Your task to perform on an android device: all mails in gmail Image 0: 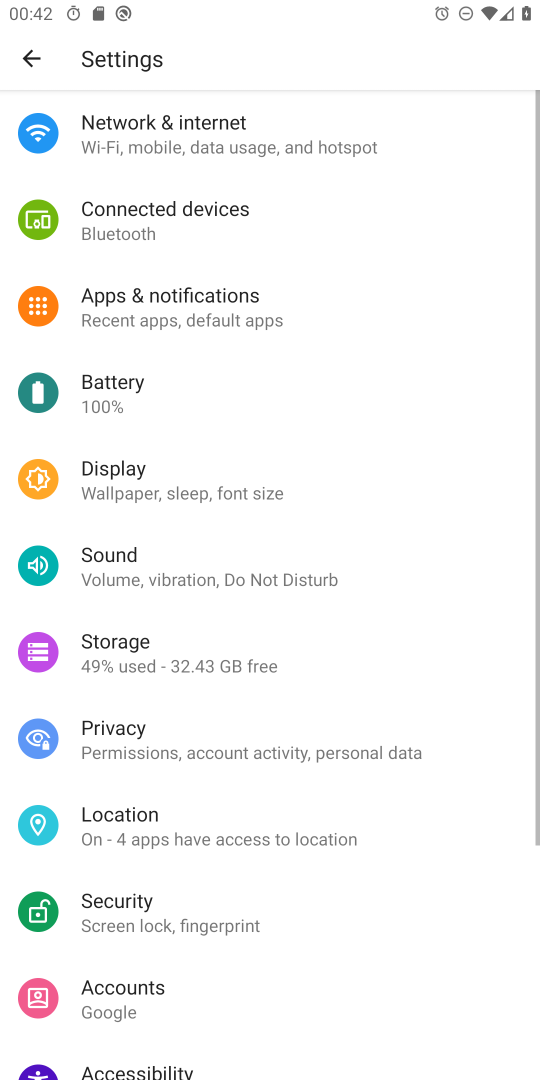
Step 0: press home button
Your task to perform on an android device: all mails in gmail Image 1: 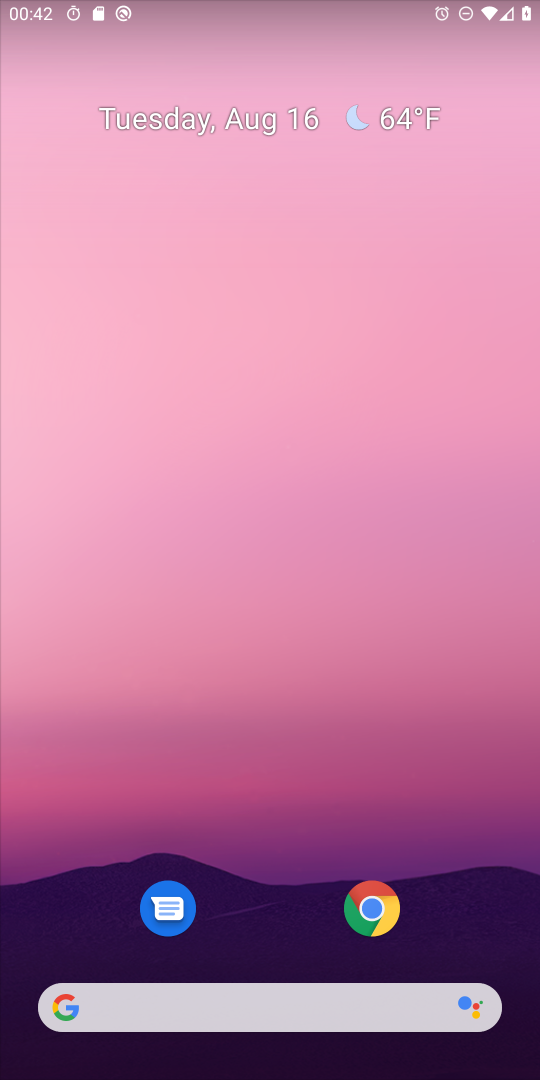
Step 1: drag from (266, 957) to (157, 108)
Your task to perform on an android device: all mails in gmail Image 2: 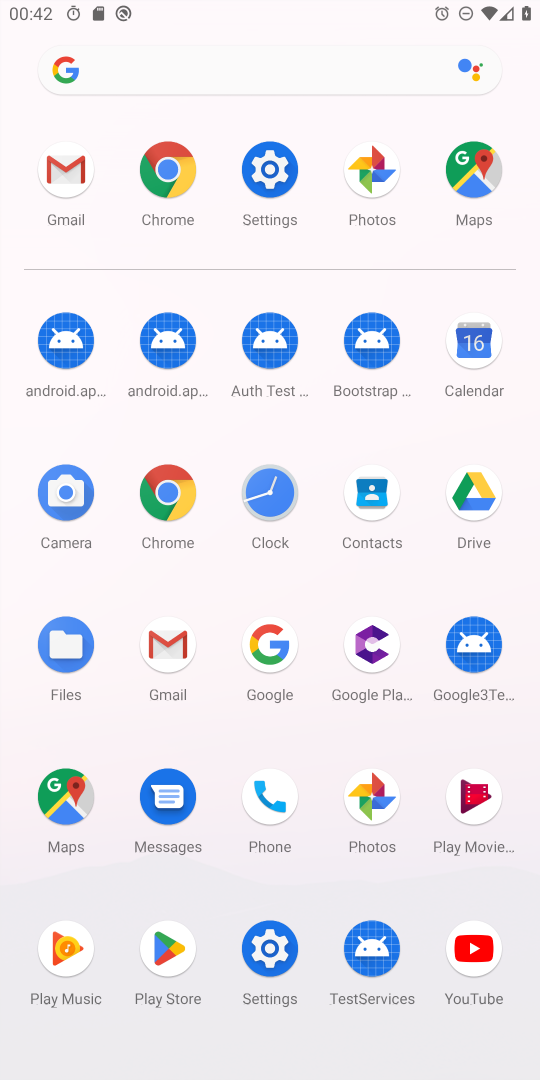
Step 2: click (79, 175)
Your task to perform on an android device: all mails in gmail Image 3: 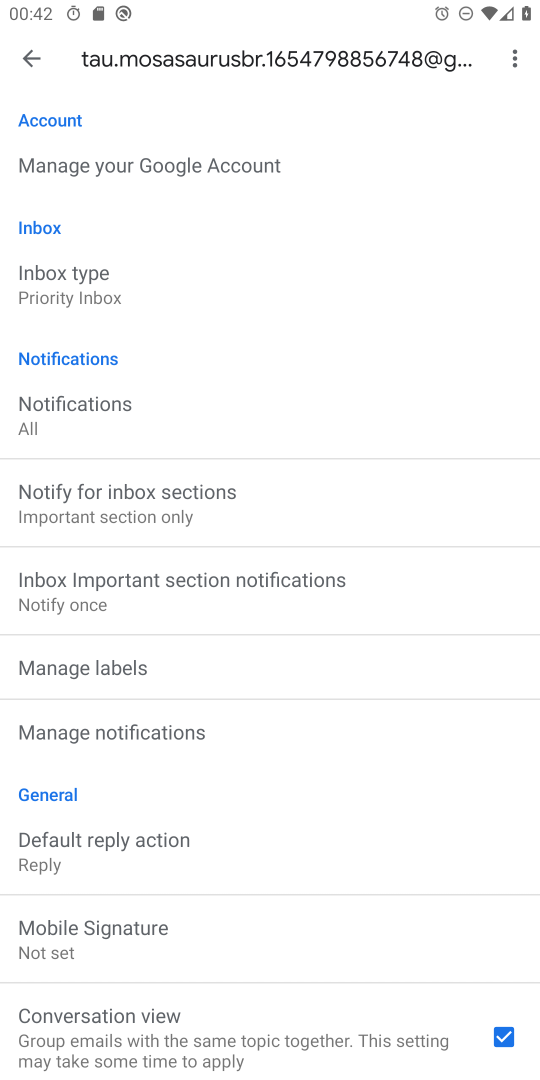
Step 3: click (38, 45)
Your task to perform on an android device: all mails in gmail Image 4: 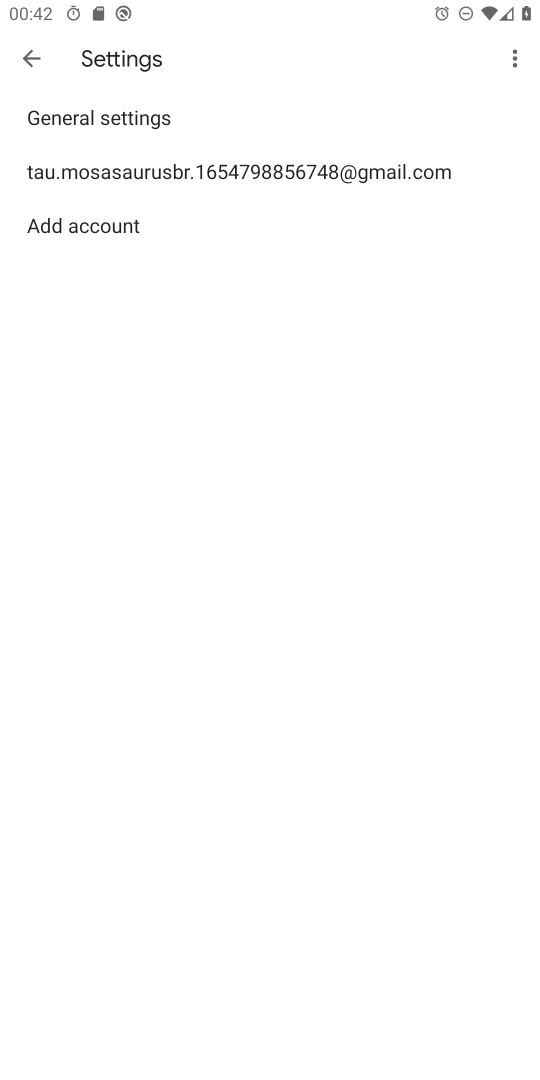
Step 4: click (35, 52)
Your task to perform on an android device: all mails in gmail Image 5: 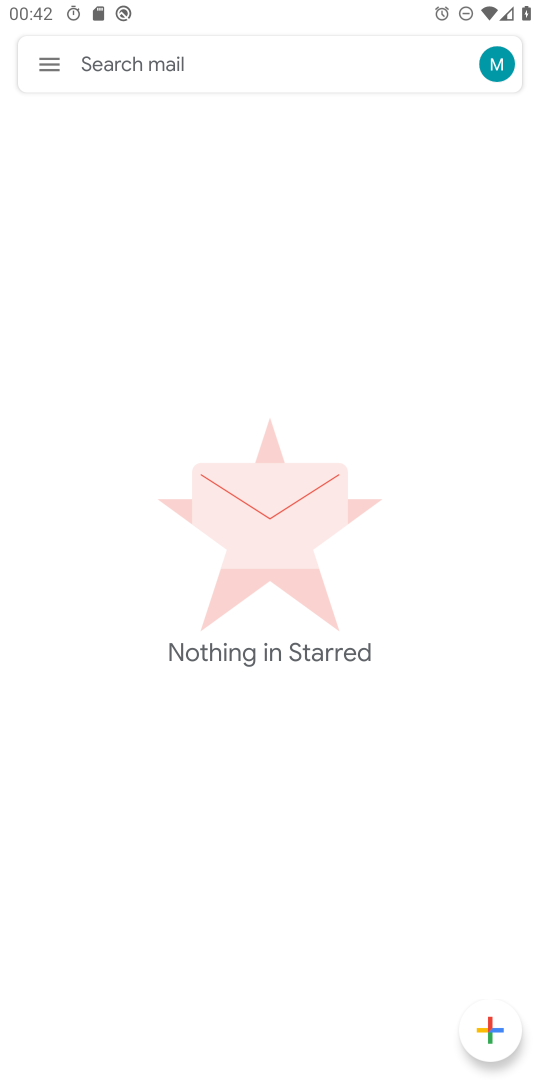
Step 5: click (35, 52)
Your task to perform on an android device: all mails in gmail Image 6: 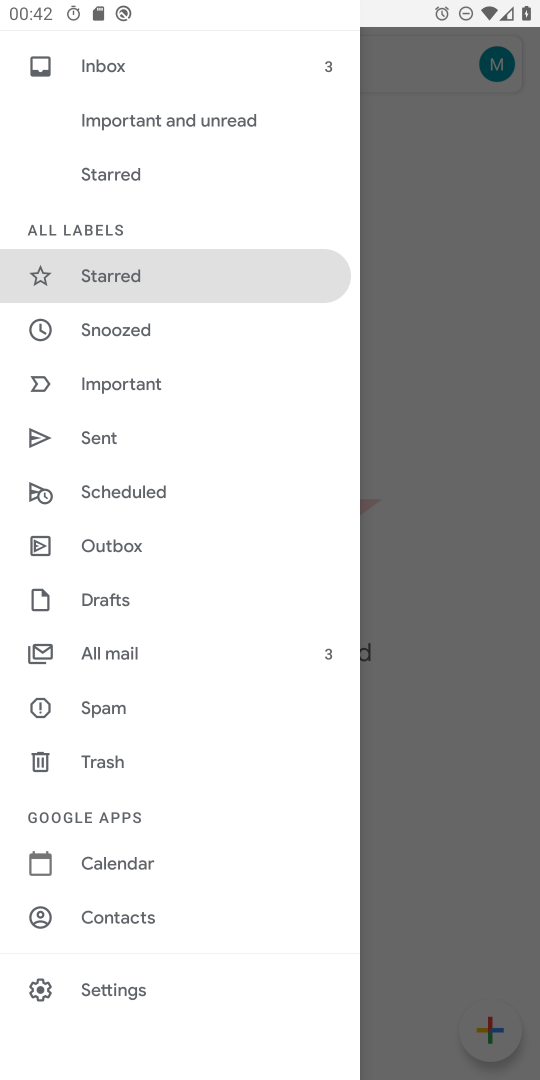
Step 6: click (158, 652)
Your task to perform on an android device: all mails in gmail Image 7: 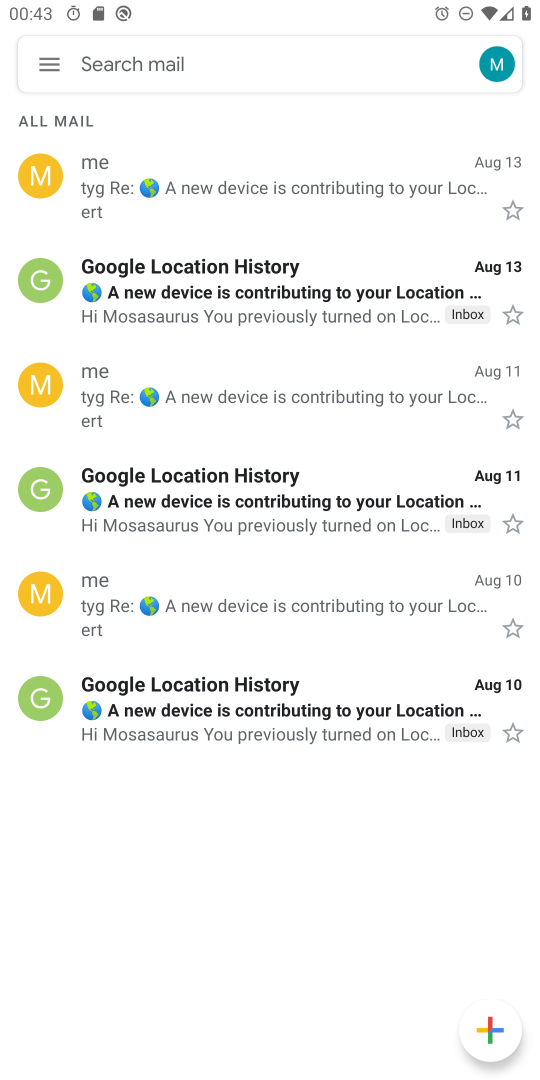
Step 7: task complete